Your task to perform on an android device: turn off notifications in google photos Image 0: 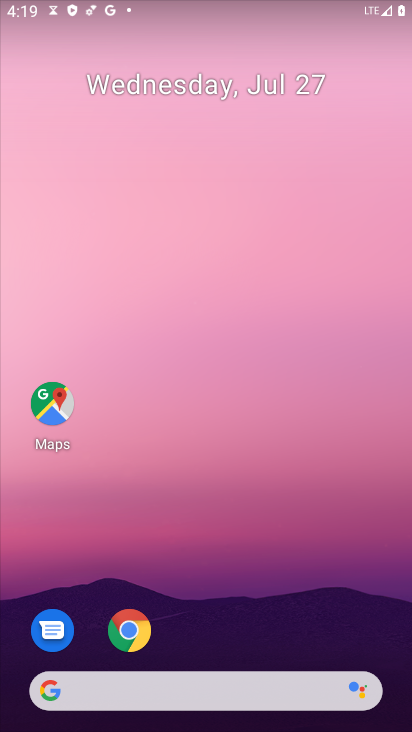
Step 0: drag from (235, 618) to (234, 250)
Your task to perform on an android device: turn off notifications in google photos Image 1: 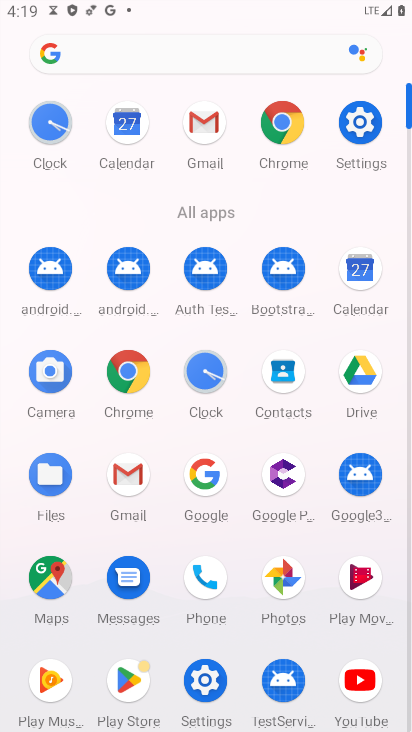
Step 1: click (274, 584)
Your task to perform on an android device: turn off notifications in google photos Image 2: 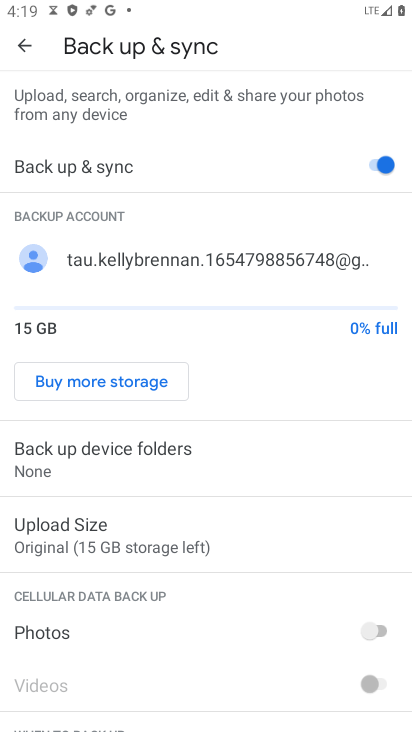
Step 2: click (24, 46)
Your task to perform on an android device: turn off notifications in google photos Image 3: 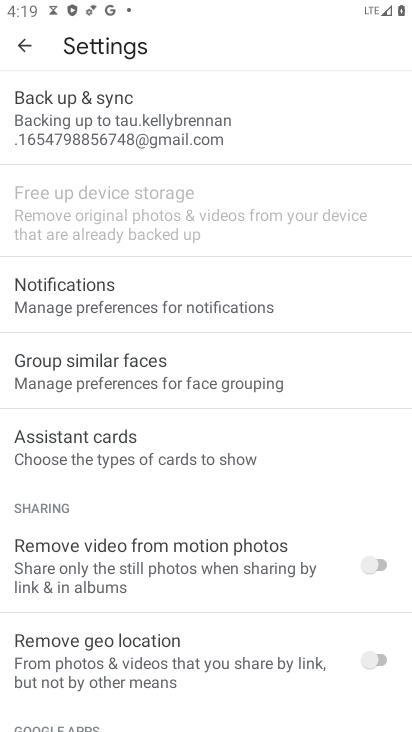
Step 3: click (129, 286)
Your task to perform on an android device: turn off notifications in google photos Image 4: 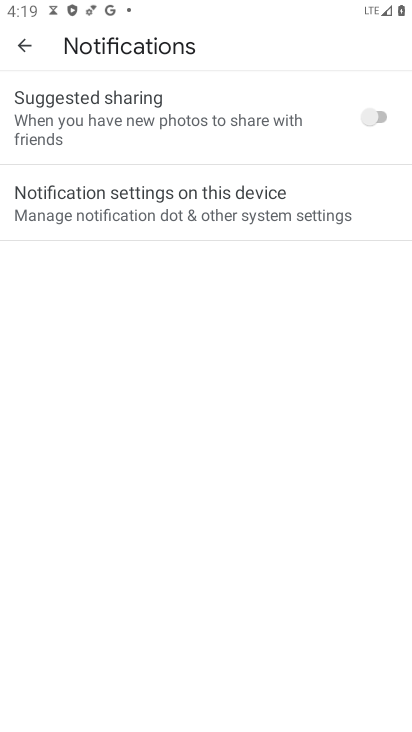
Step 4: click (195, 183)
Your task to perform on an android device: turn off notifications in google photos Image 5: 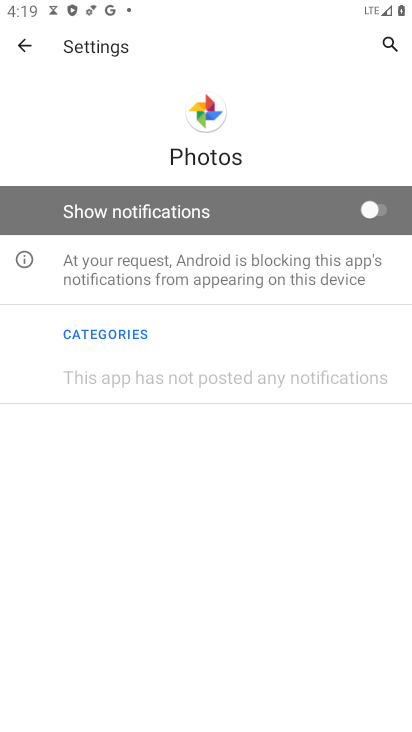
Step 5: task complete